Your task to perform on an android device: See recent photos Image 0: 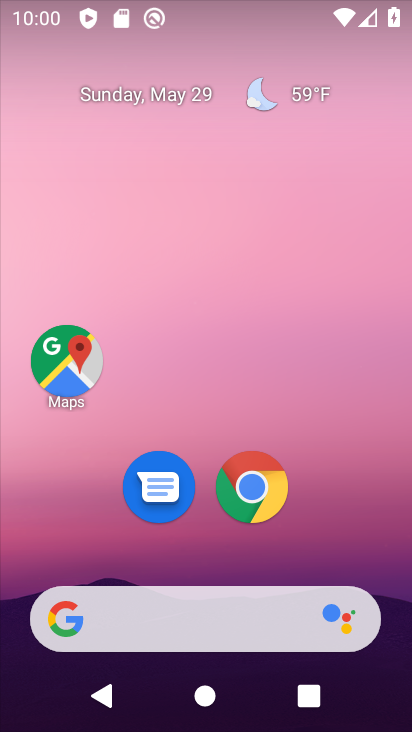
Step 0: drag from (393, 671) to (372, 167)
Your task to perform on an android device: See recent photos Image 1: 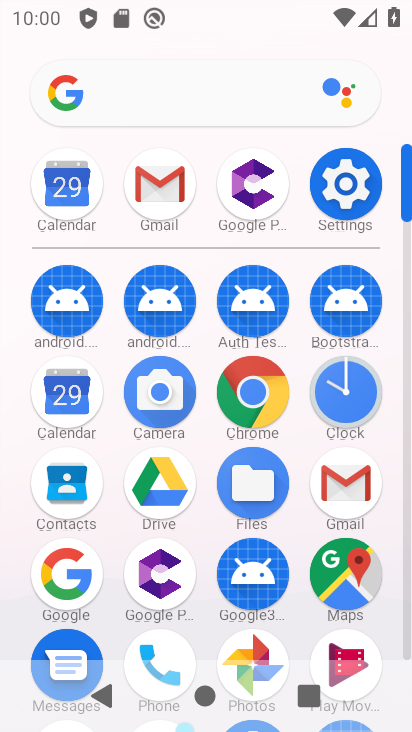
Step 1: click (245, 645)
Your task to perform on an android device: See recent photos Image 2: 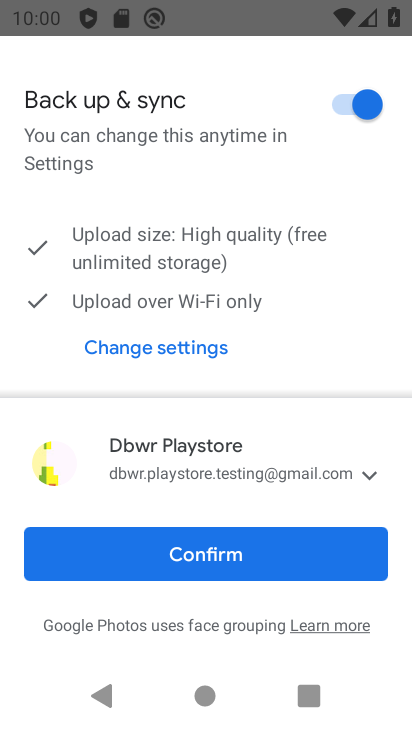
Step 2: click (219, 563)
Your task to perform on an android device: See recent photos Image 3: 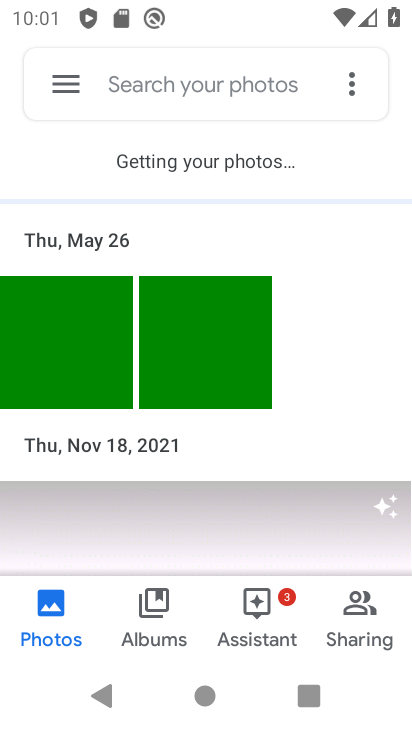
Step 3: click (68, 370)
Your task to perform on an android device: See recent photos Image 4: 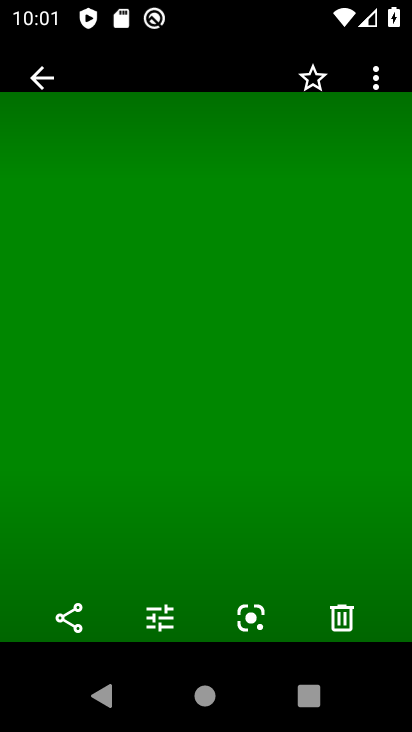
Step 4: click (399, 248)
Your task to perform on an android device: See recent photos Image 5: 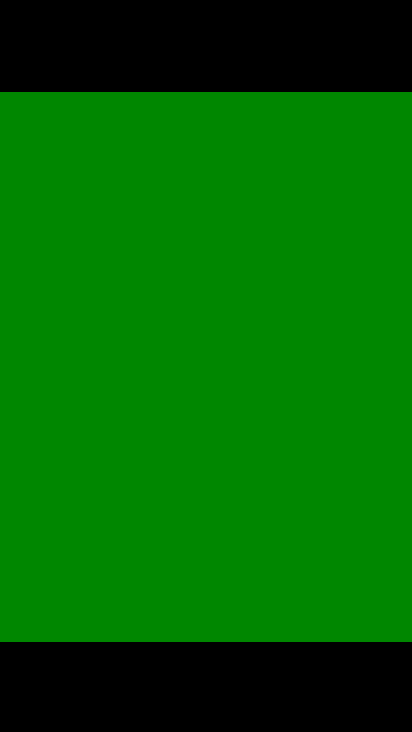
Step 5: click (46, 72)
Your task to perform on an android device: See recent photos Image 6: 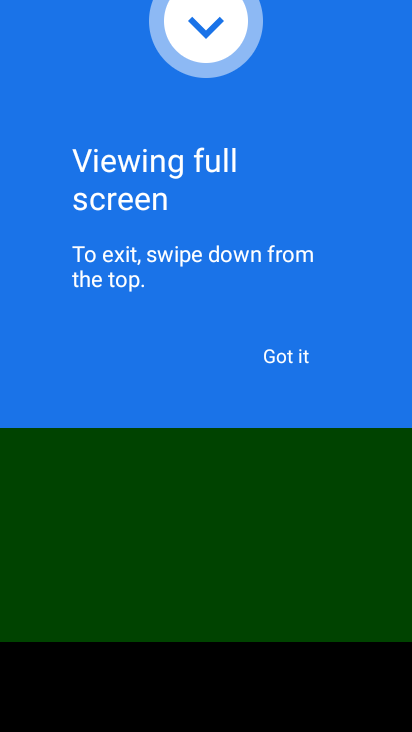
Step 6: click (275, 365)
Your task to perform on an android device: See recent photos Image 7: 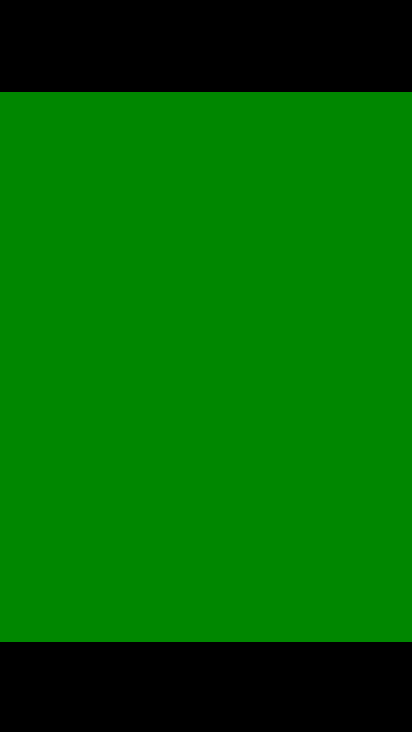
Step 7: click (398, 290)
Your task to perform on an android device: See recent photos Image 8: 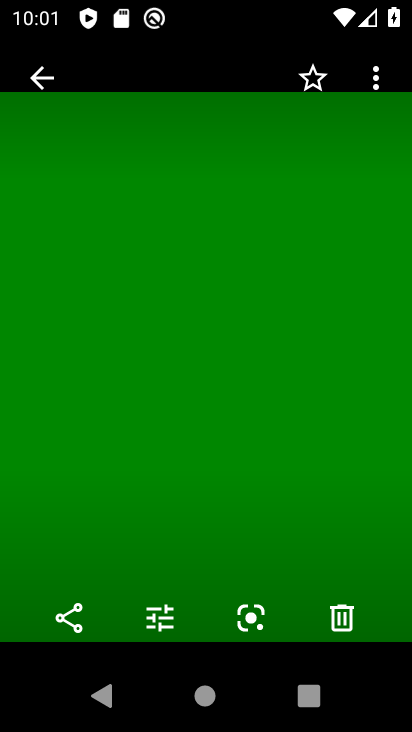
Step 8: click (370, 288)
Your task to perform on an android device: See recent photos Image 9: 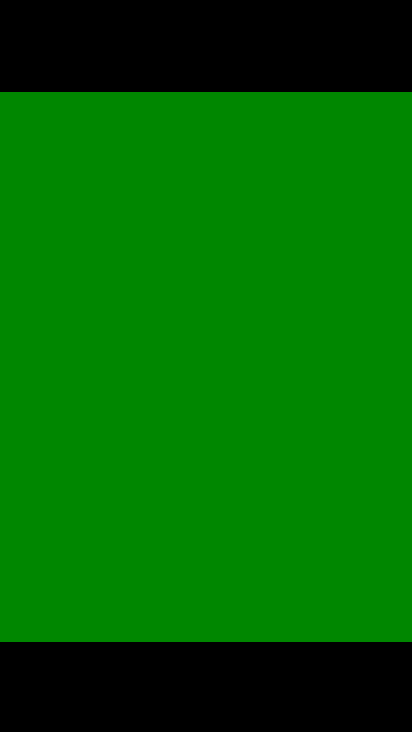
Step 9: click (50, 94)
Your task to perform on an android device: See recent photos Image 10: 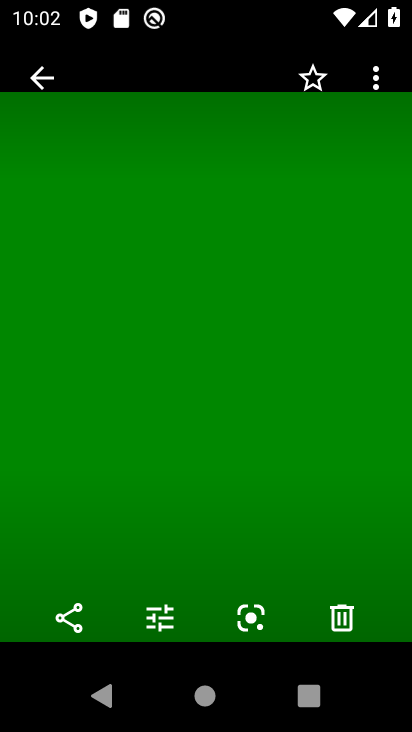
Step 10: click (39, 77)
Your task to perform on an android device: See recent photos Image 11: 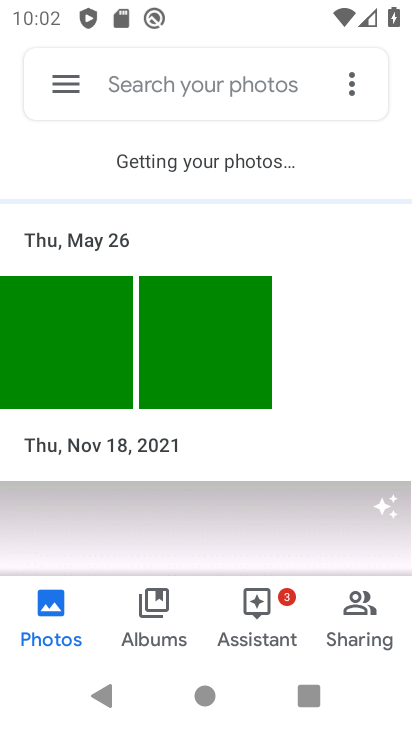
Step 11: click (201, 355)
Your task to perform on an android device: See recent photos Image 12: 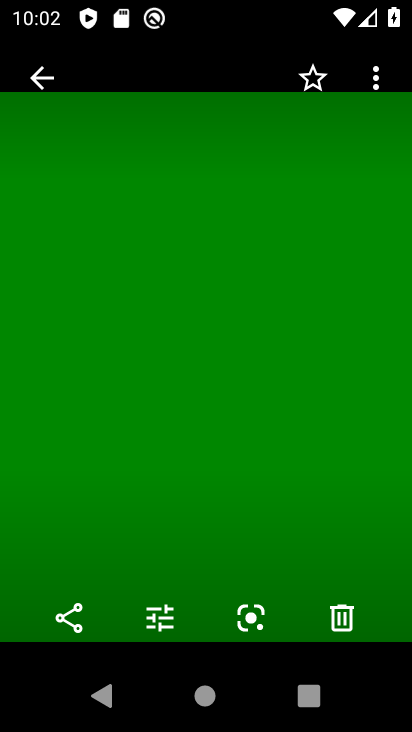
Step 12: task complete